Your task to perform on an android device: find snoozed emails in the gmail app Image 0: 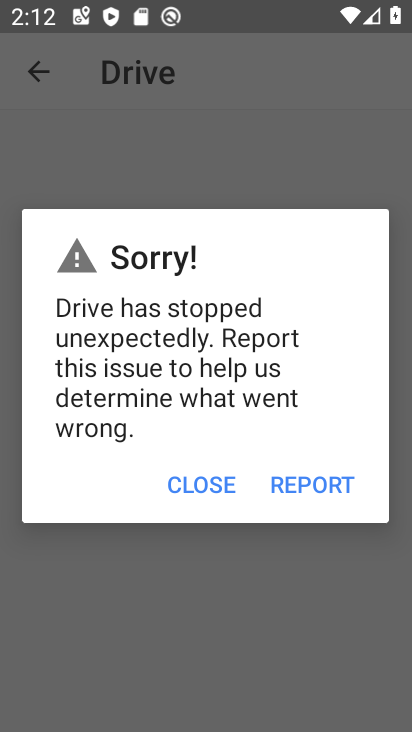
Step 0: click (350, 608)
Your task to perform on an android device: find snoozed emails in the gmail app Image 1: 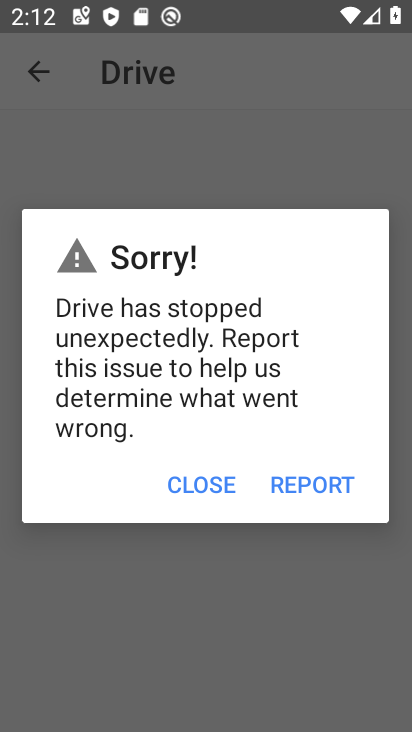
Step 1: press home button
Your task to perform on an android device: find snoozed emails in the gmail app Image 2: 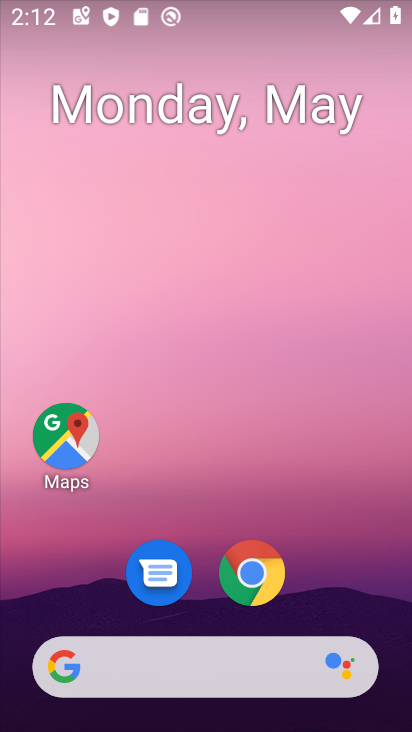
Step 2: drag from (64, 622) to (208, 157)
Your task to perform on an android device: find snoozed emails in the gmail app Image 3: 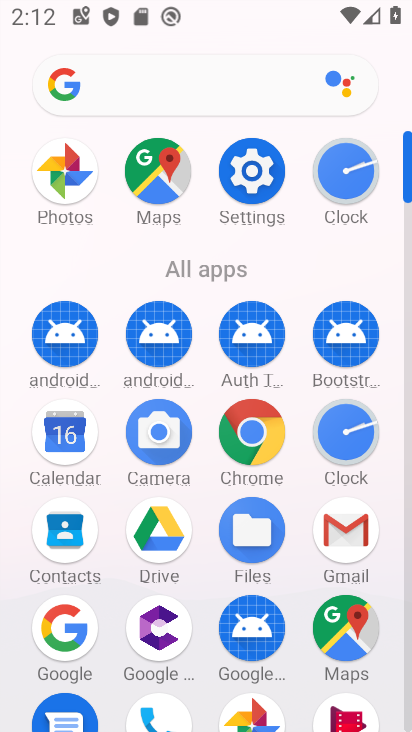
Step 3: click (357, 535)
Your task to perform on an android device: find snoozed emails in the gmail app Image 4: 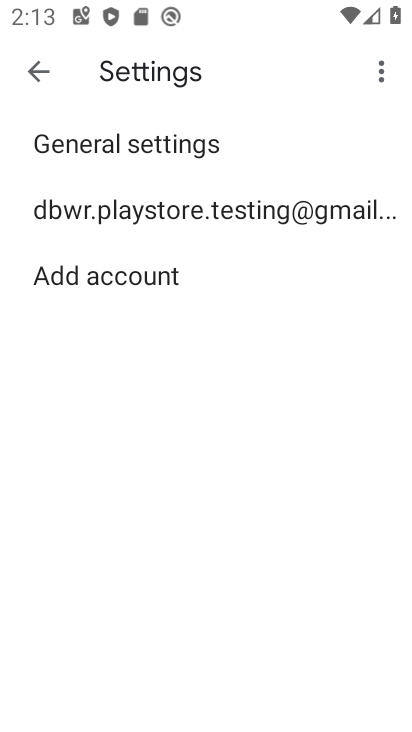
Step 4: click (59, 65)
Your task to perform on an android device: find snoozed emails in the gmail app Image 5: 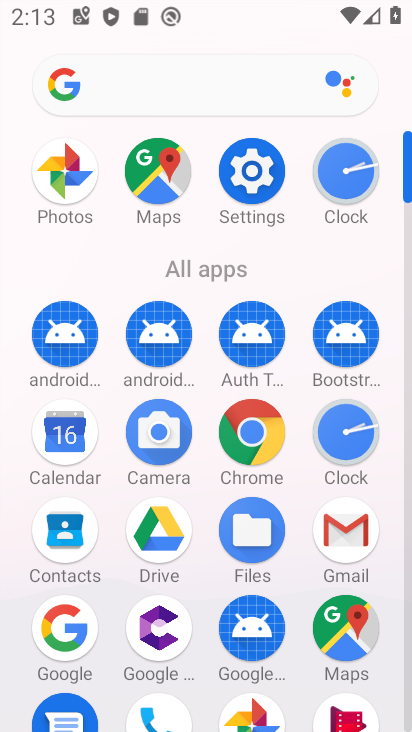
Step 5: click (365, 528)
Your task to perform on an android device: find snoozed emails in the gmail app Image 6: 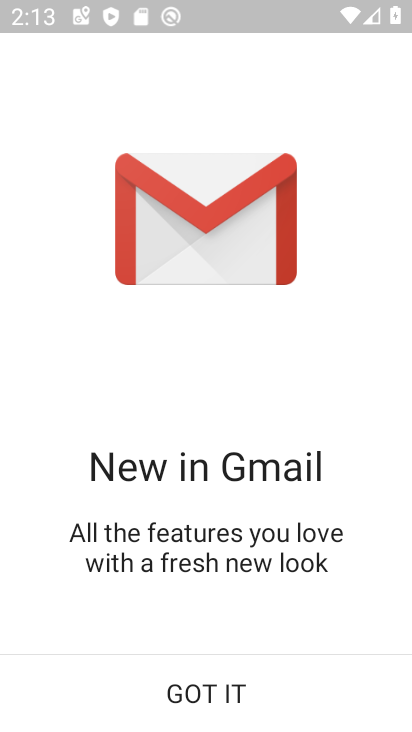
Step 6: click (226, 697)
Your task to perform on an android device: find snoozed emails in the gmail app Image 7: 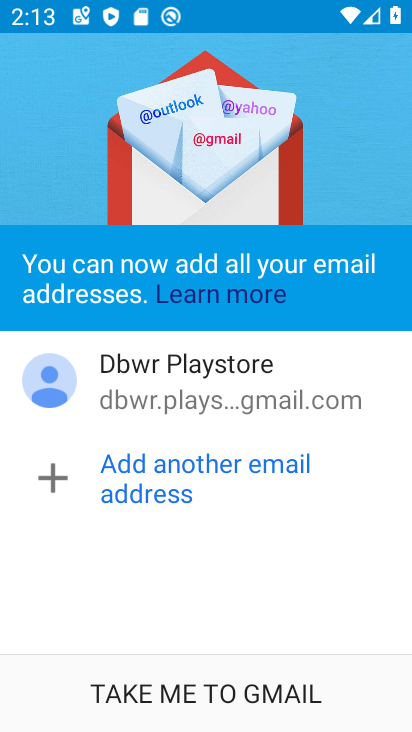
Step 7: click (260, 696)
Your task to perform on an android device: find snoozed emails in the gmail app Image 8: 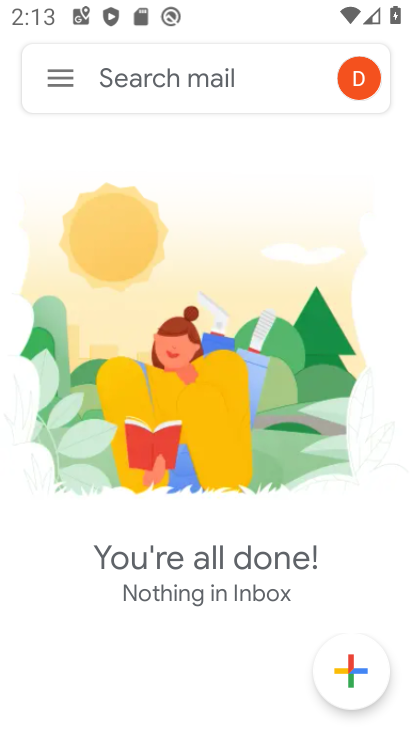
Step 8: click (58, 94)
Your task to perform on an android device: find snoozed emails in the gmail app Image 9: 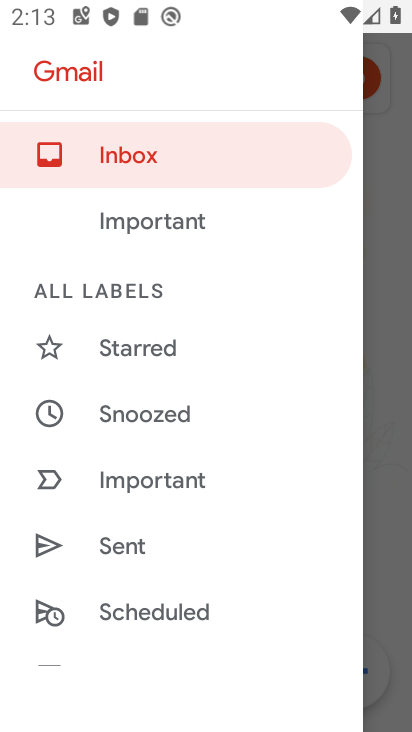
Step 9: click (210, 427)
Your task to perform on an android device: find snoozed emails in the gmail app Image 10: 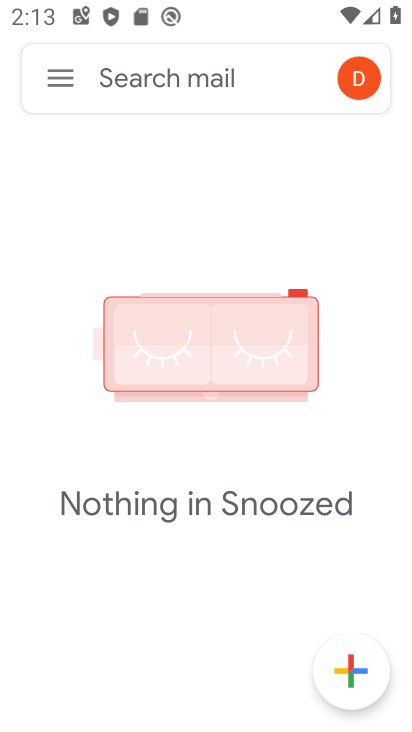
Step 10: task complete